Your task to perform on an android device: Go to network settings Image 0: 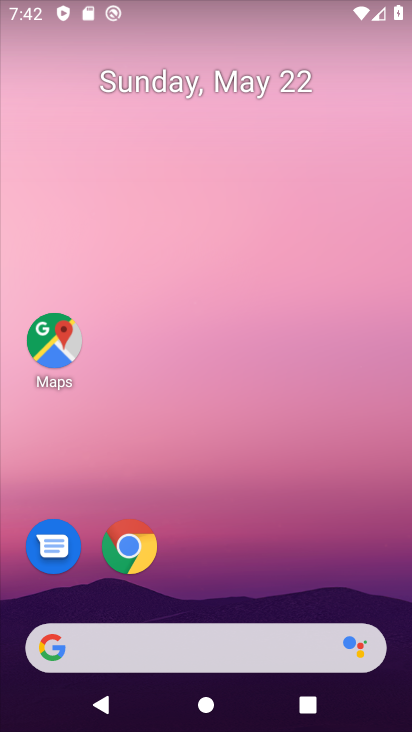
Step 0: drag from (258, 469) to (240, 11)
Your task to perform on an android device: Go to network settings Image 1: 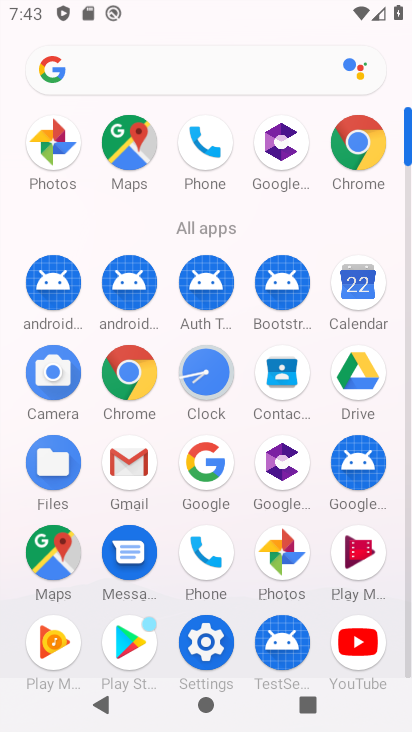
Step 1: click (218, 647)
Your task to perform on an android device: Go to network settings Image 2: 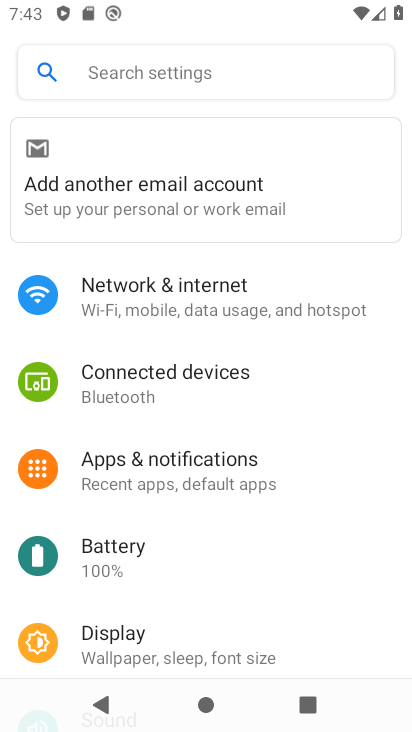
Step 2: click (182, 316)
Your task to perform on an android device: Go to network settings Image 3: 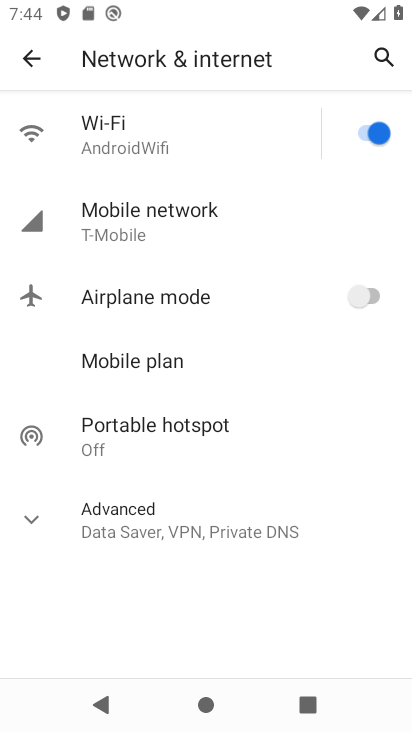
Step 3: task complete